Your task to perform on an android device: Empty the shopping cart on target. Search for macbook on target, select the first entry, add it to the cart, then select checkout. Image 0: 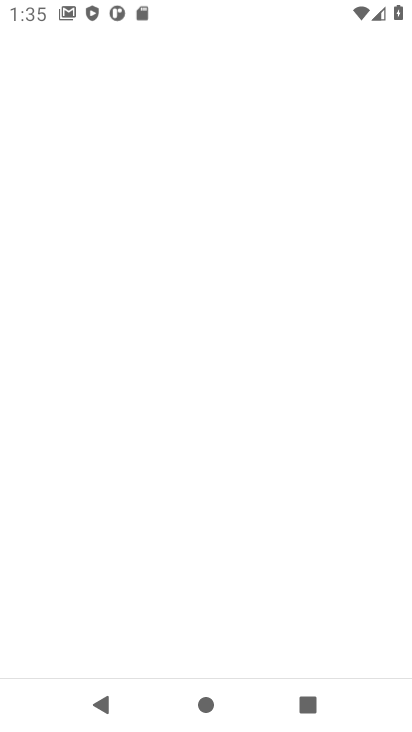
Step 0: task impossible